Your task to perform on an android device: Search for vegetarian restaurants on Maps Image 0: 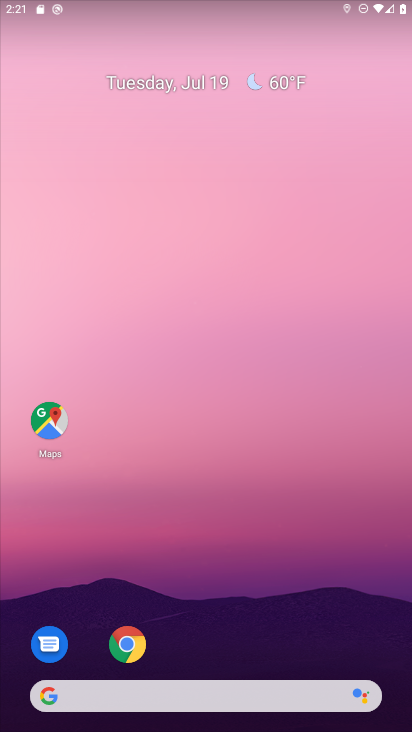
Step 0: click (58, 412)
Your task to perform on an android device: Search for vegetarian restaurants on Maps Image 1: 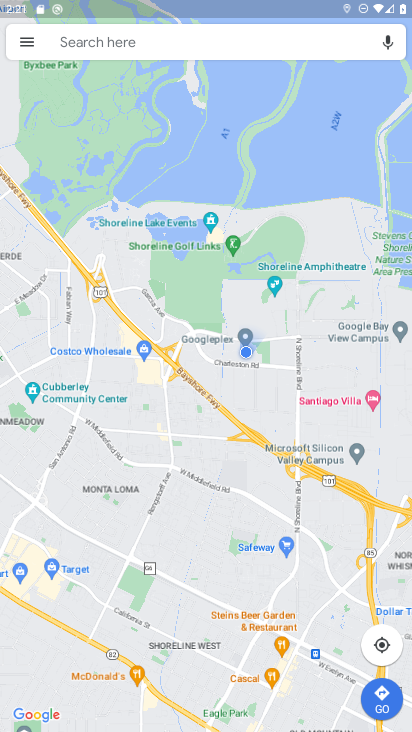
Step 1: click (168, 32)
Your task to perform on an android device: Search for vegetarian restaurants on Maps Image 2: 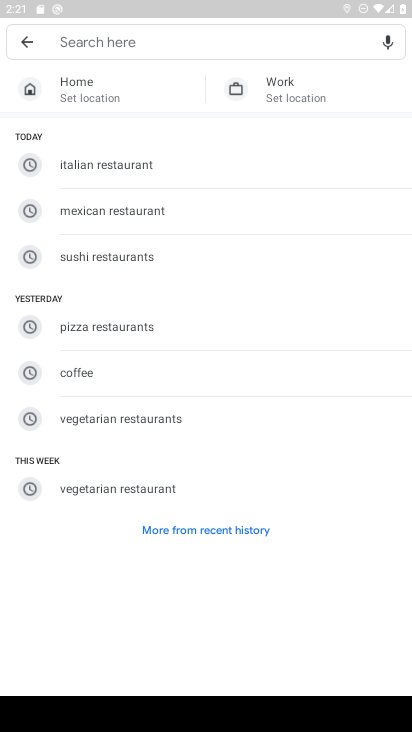
Step 2: click (94, 422)
Your task to perform on an android device: Search for vegetarian restaurants on Maps Image 3: 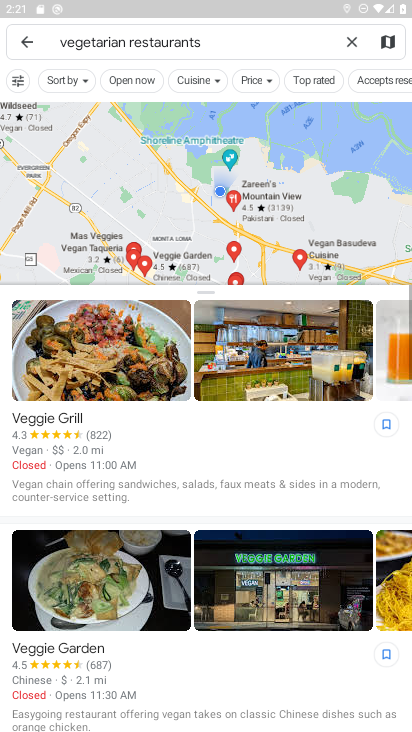
Step 3: task complete